Your task to perform on an android device: Go to ESPN.com Image 0: 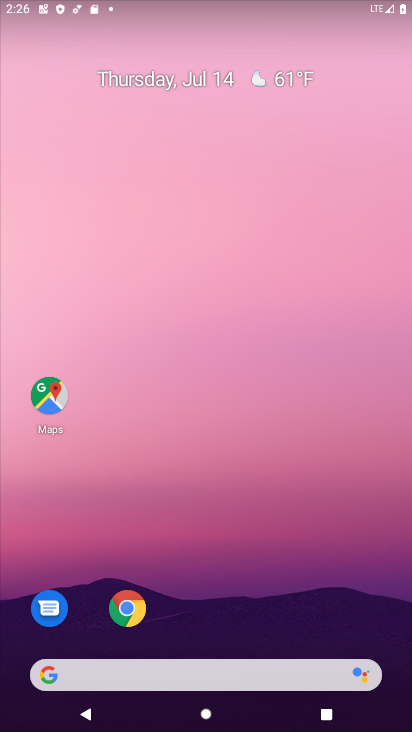
Step 0: click (124, 610)
Your task to perform on an android device: Go to ESPN.com Image 1: 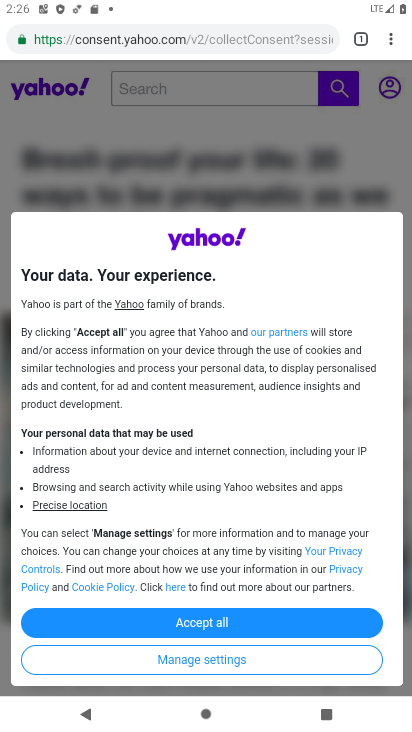
Step 1: click (359, 34)
Your task to perform on an android device: Go to ESPN.com Image 2: 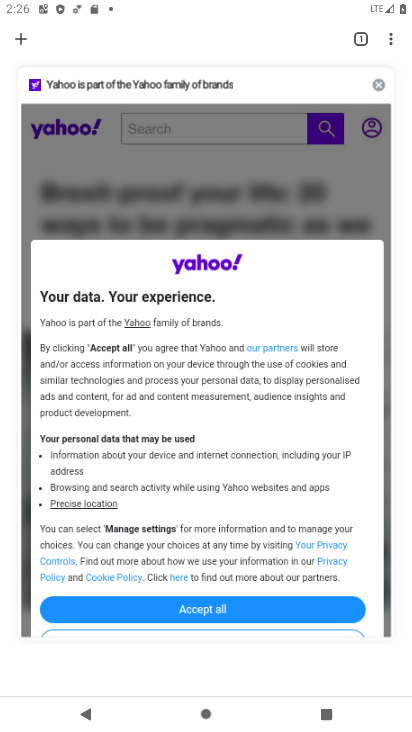
Step 2: click (378, 83)
Your task to perform on an android device: Go to ESPN.com Image 3: 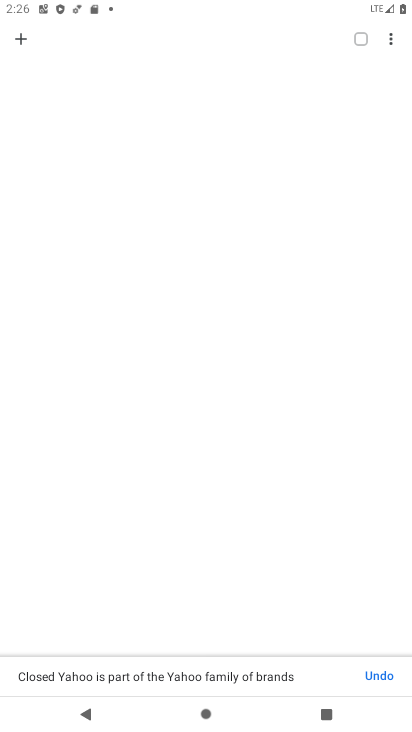
Step 3: click (19, 34)
Your task to perform on an android device: Go to ESPN.com Image 4: 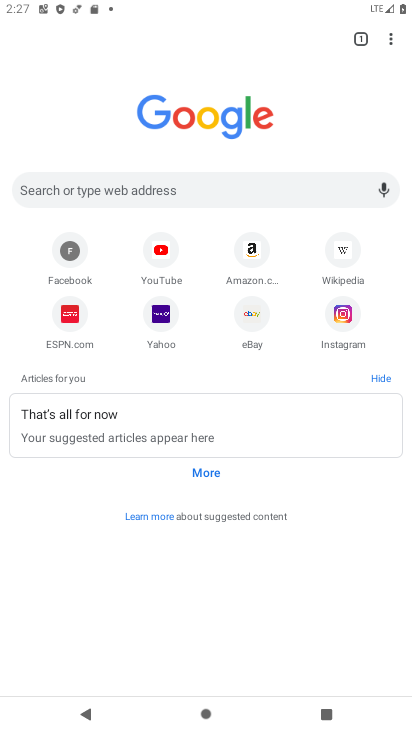
Step 4: click (62, 319)
Your task to perform on an android device: Go to ESPN.com Image 5: 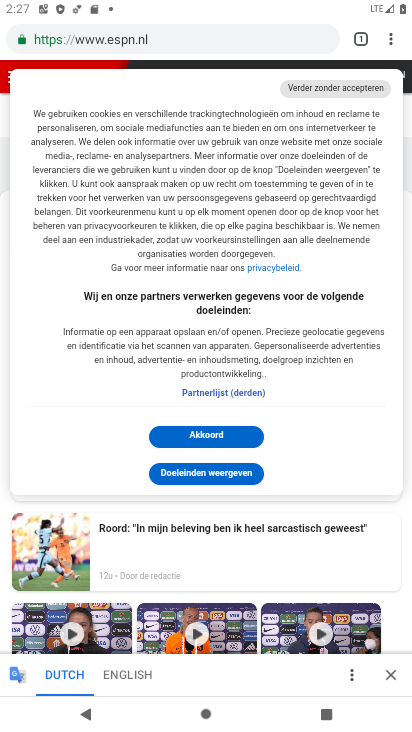
Step 5: task complete